Your task to perform on an android device: Go to Google maps Image 0: 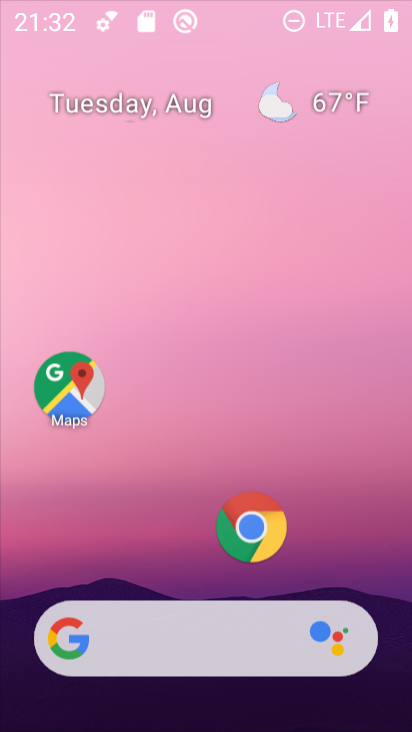
Step 0: click (239, 245)
Your task to perform on an android device: Go to Google maps Image 1: 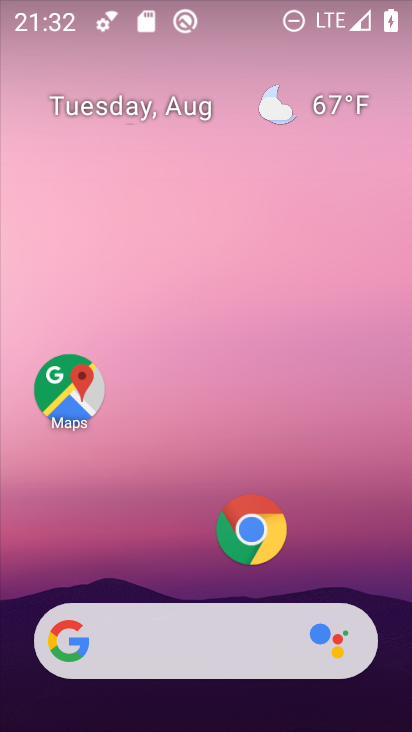
Step 1: drag from (198, 500) to (232, 128)
Your task to perform on an android device: Go to Google maps Image 2: 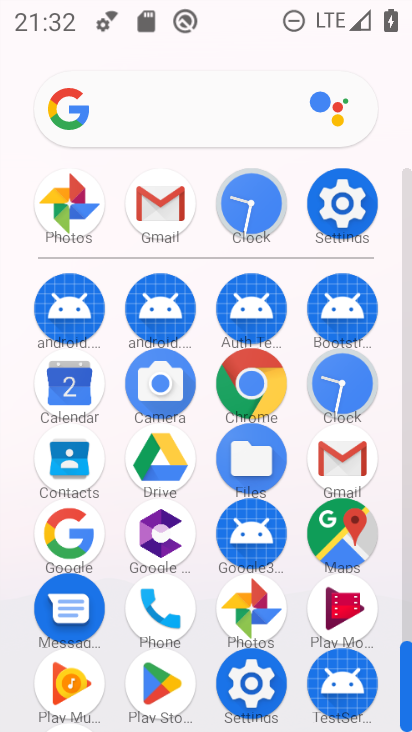
Step 2: drag from (205, 633) to (188, 320)
Your task to perform on an android device: Go to Google maps Image 3: 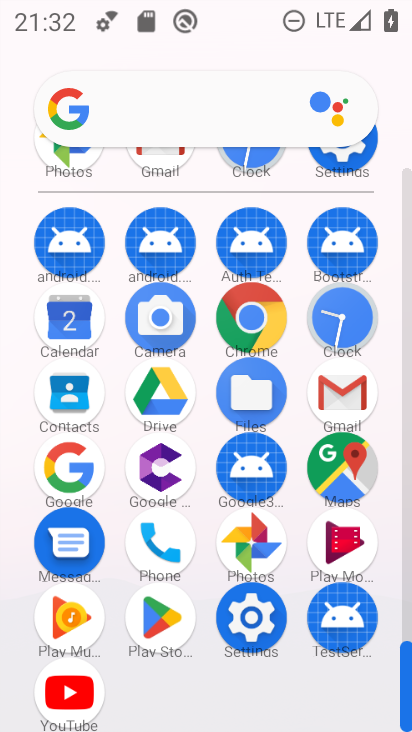
Step 3: click (343, 467)
Your task to perform on an android device: Go to Google maps Image 4: 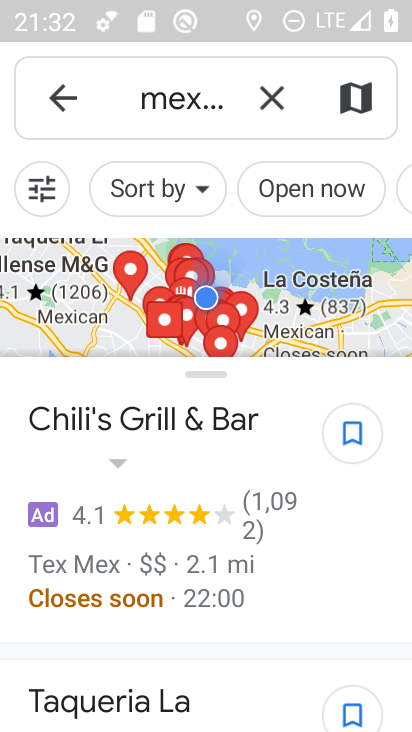
Step 4: task complete